Your task to perform on an android device: What is the news today? Image 0: 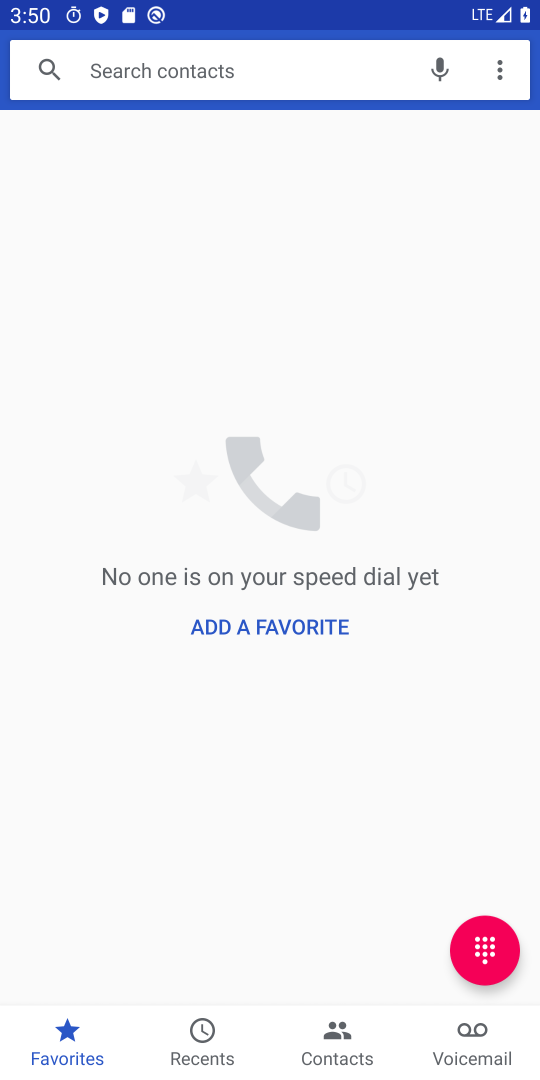
Step 0: press home button
Your task to perform on an android device: What is the news today? Image 1: 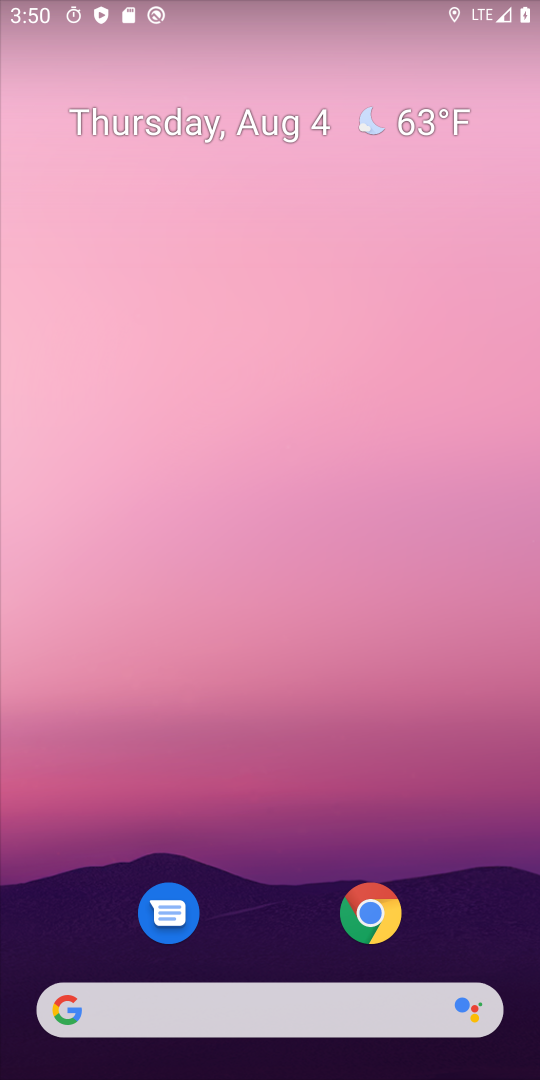
Step 1: drag from (279, 1006) to (409, 11)
Your task to perform on an android device: What is the news today? Image 2: 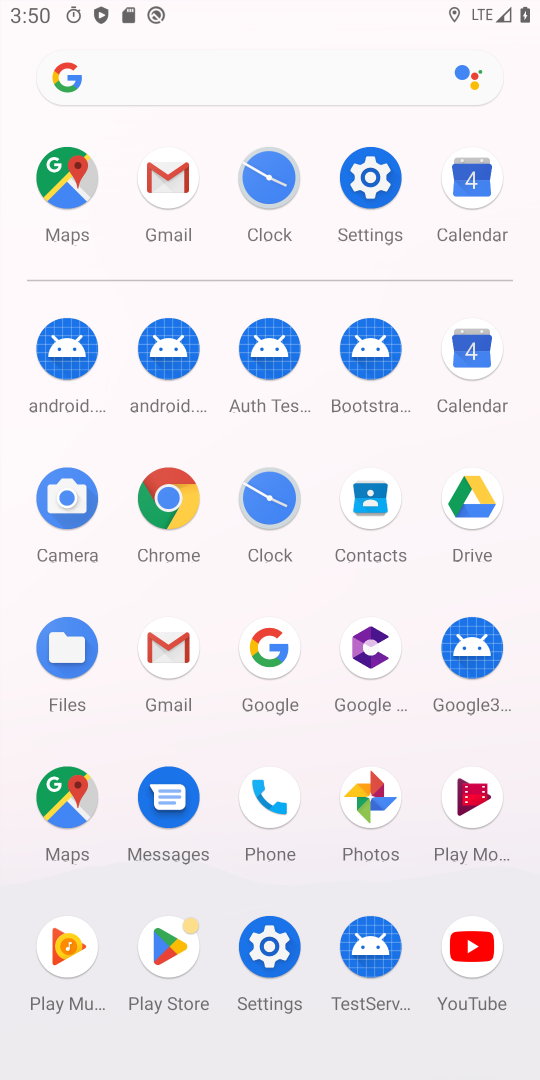
Step 2: click (153, 502)
Your task to perform on an android device: What is the news today? Image 3: 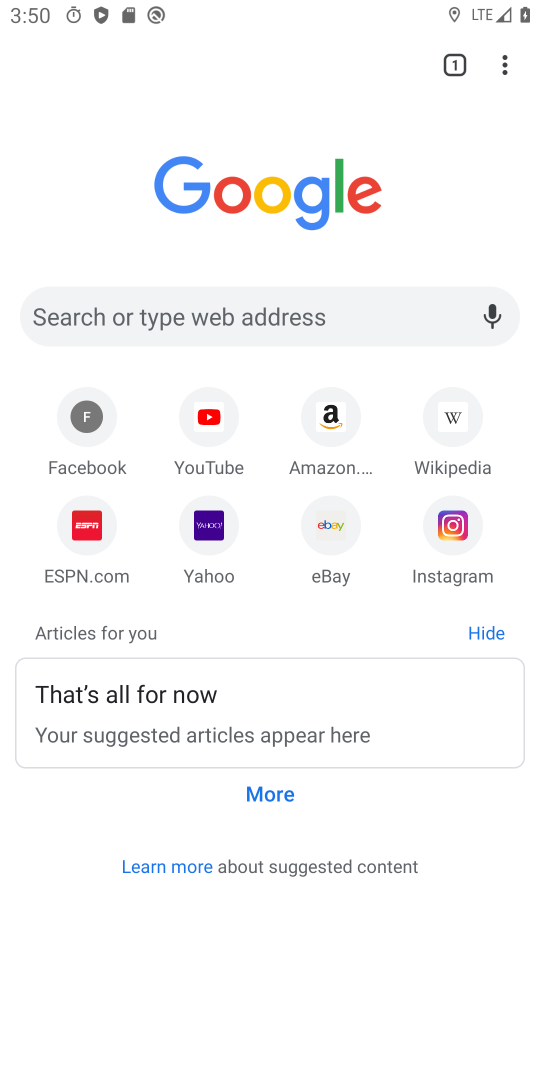
Step 3: click (248, 320)
Your task to perform on an android device: What is the news today? Image 4: 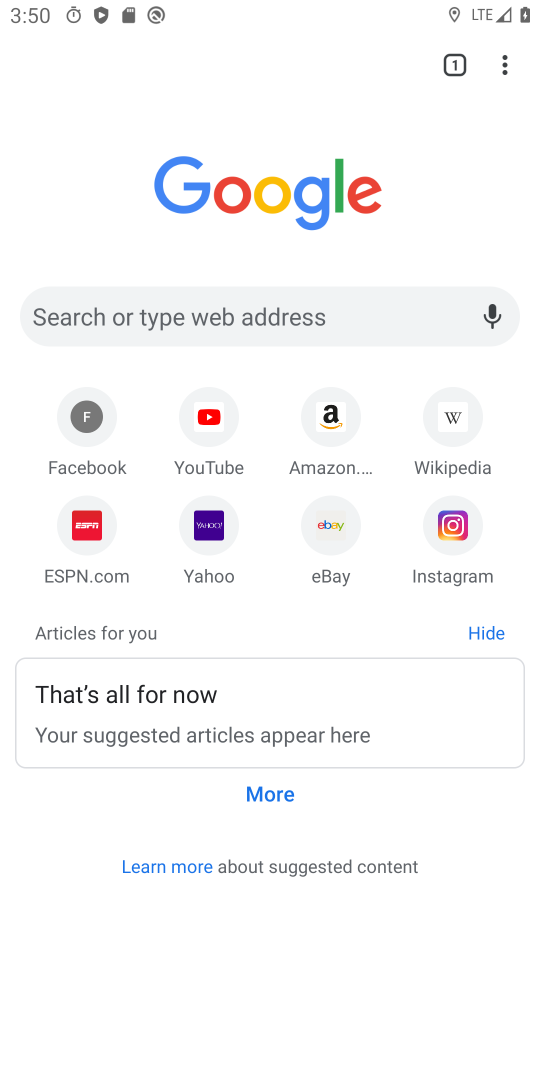
Step 4: click (250, 321)
Your task to perform on an android device: What is the news today? Image 5: 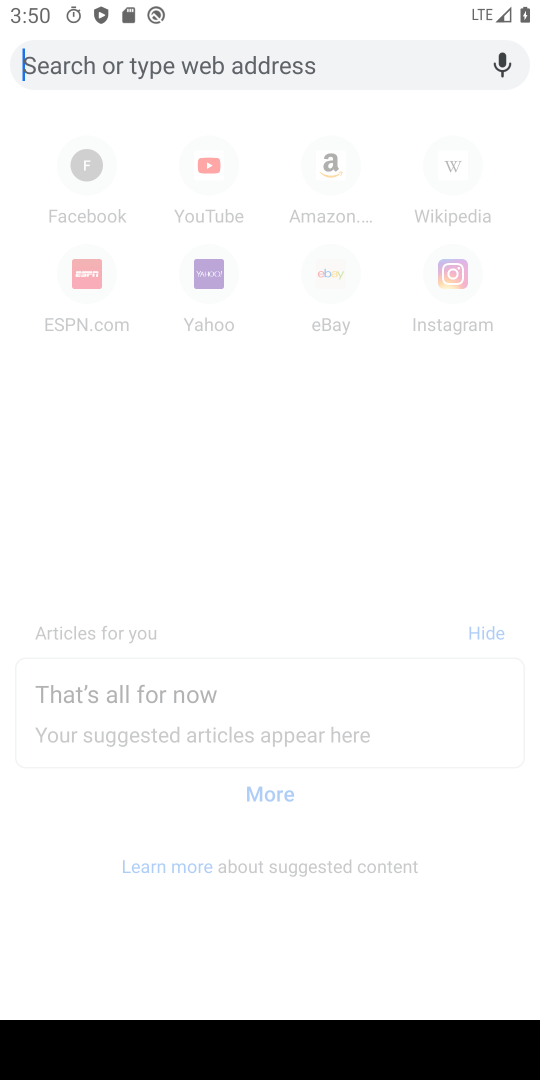
Step 5: type "what is the news today"
Your task to perform on an android device: What is the news today? Image 6: 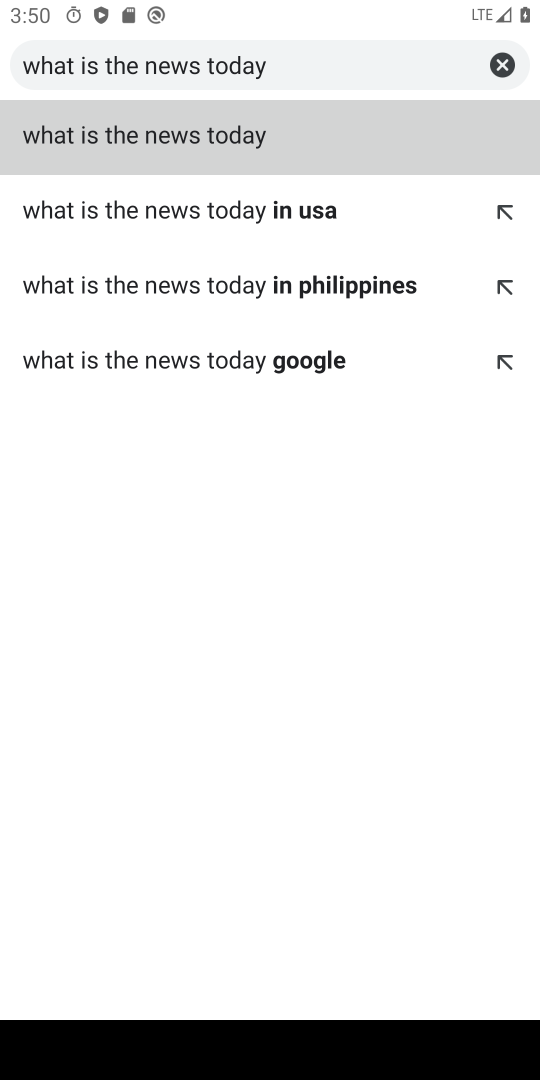
Step 6: click (280, 145)
Your task to perform on an android device: What is the news today? Image 7: 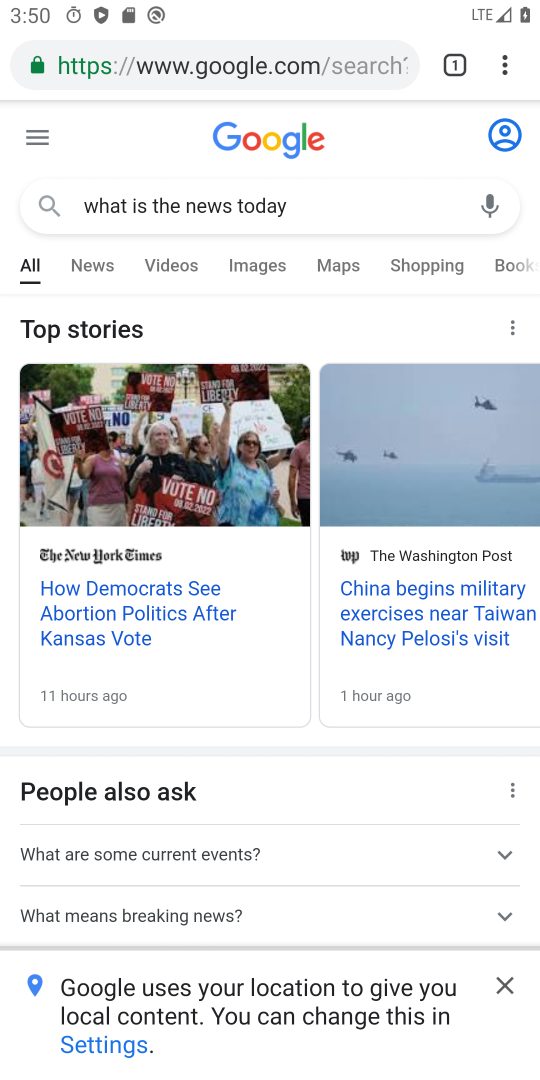
Step 7: task complete